Your task to perform on an android device: Open Youtube and go to "Your channel" Image 0: 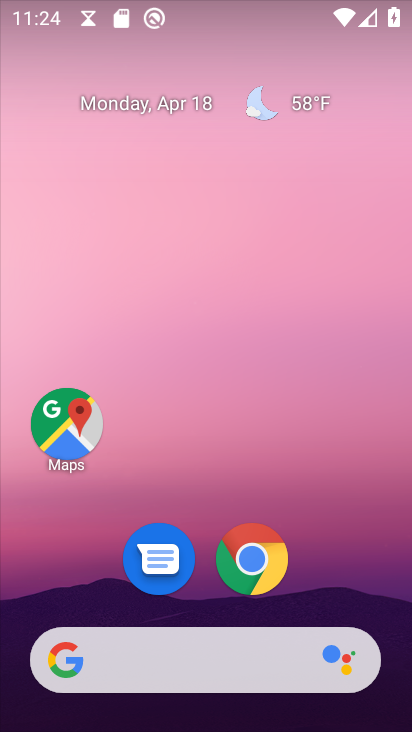
Step 0: drag from (350, 549) to (317, 102)
Your task to perform on an android device: Open Youtube and go to "Your channel" Image 1: 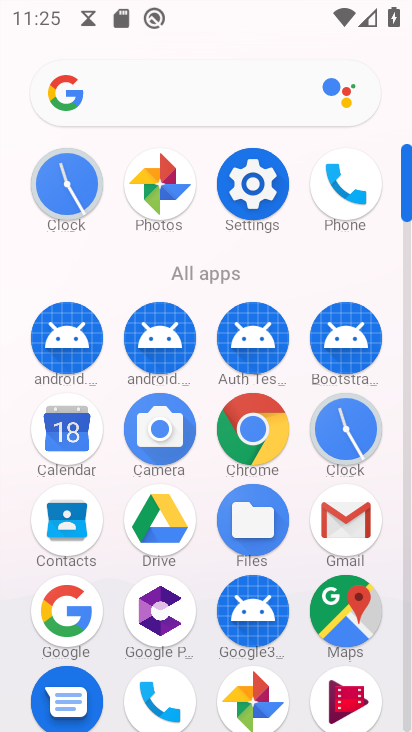
Step 1: drag from (213, 653) to (207, 213)
Your task to perform on an android device: Open Youtube and go to "Your channel" Image 2: 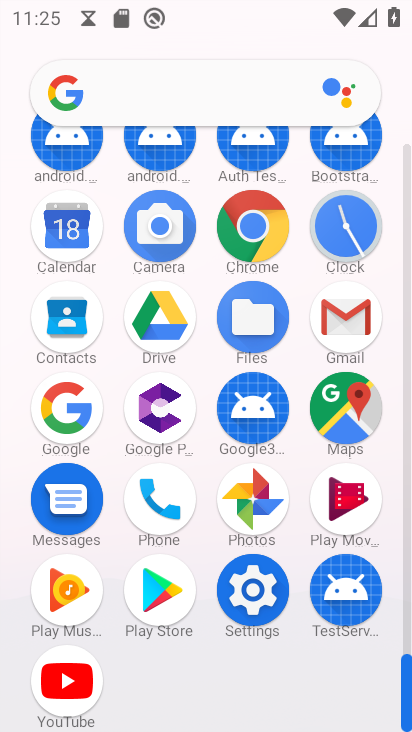
Step 2: click (86, 695)
Your task to perform on an android device: Open Youtube and go to "Your channel" Image 3: 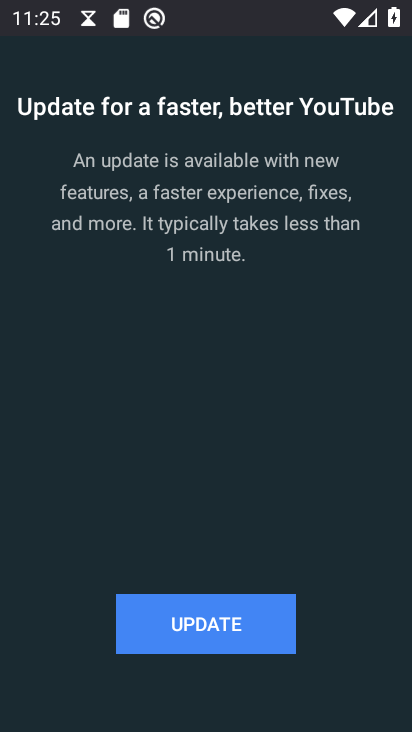
Step 3: click (221, 634)
Your task to perform on an android device: Open Youtube and go to "Your channel" Image 4: 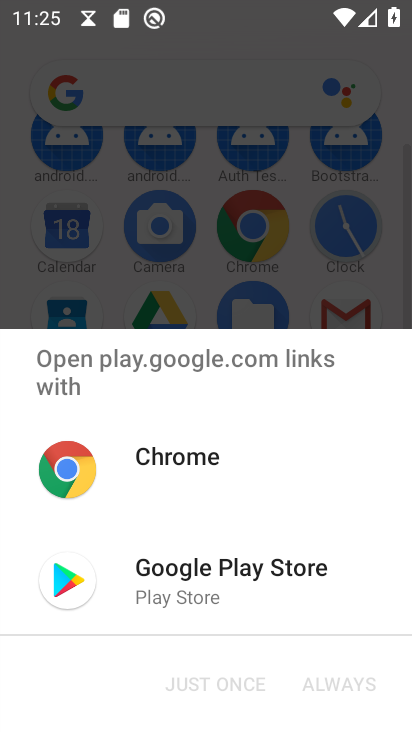
Step 4: click (188, 571)
Your task to perform on an android device: Open Youtube and go to "Your channel" Image 5: 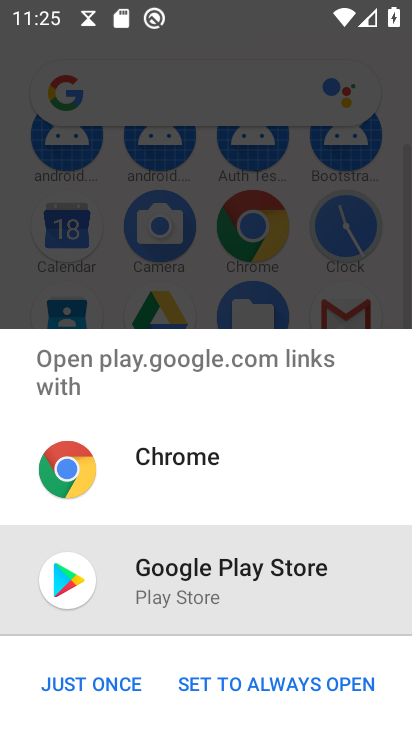
Step 5: click (97, 683)
Your task to perform on an android device: Open Youtube and go to "Your channel" Image 6: 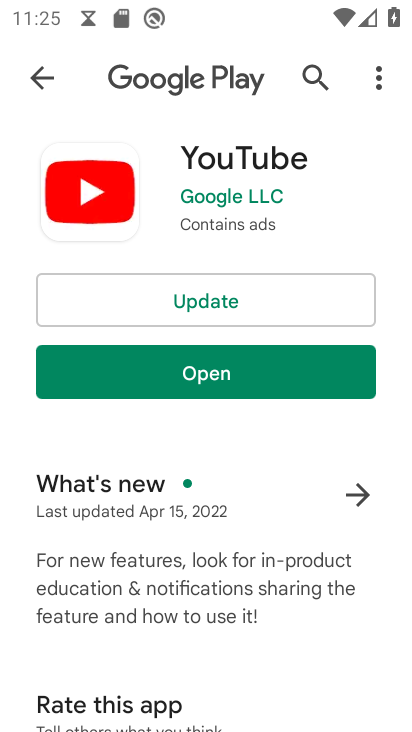
Step 6: click (203, 302)
Your task to perform on an android device: Open Youtube and go to "Your channel" Image 7: 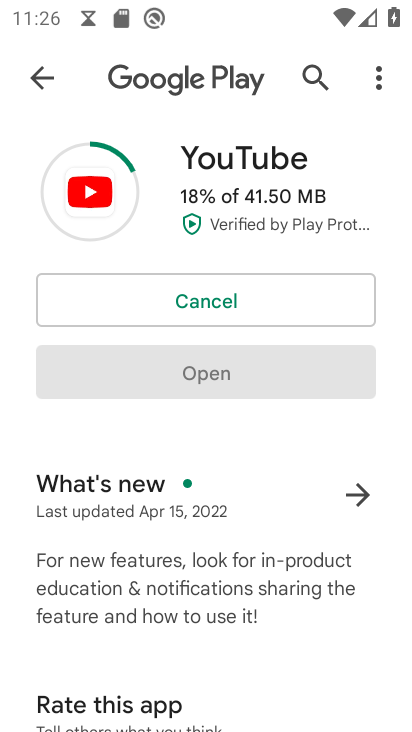
Step 7: click (203, 193)
Your task to perform on an android device: Open Youtube and go to "Your channel" Image 8: 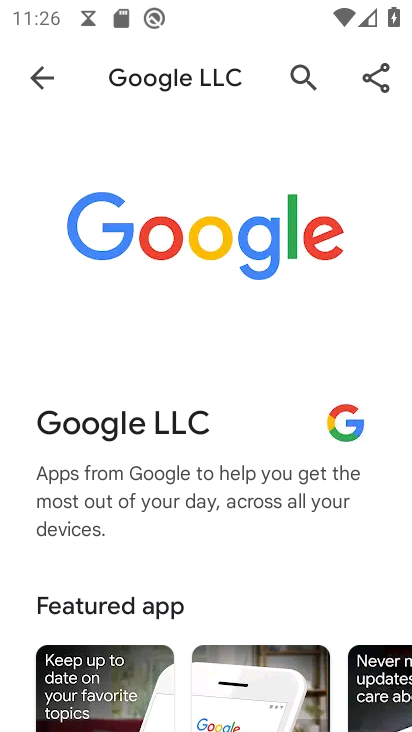
Step 8: click (41, 73)
Your task to perform on an android device: Open Youtube and go to "Your channel" Image 9: 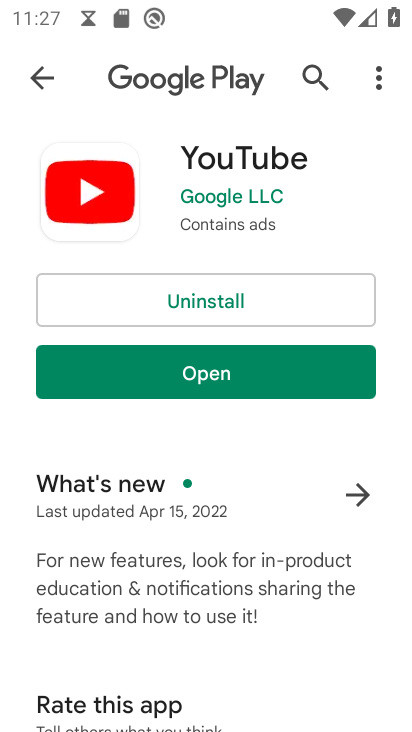
Step 9: click (160, 381)
Your task to perform on an android device: Open Youtube and go to "Your channel" Image 10: 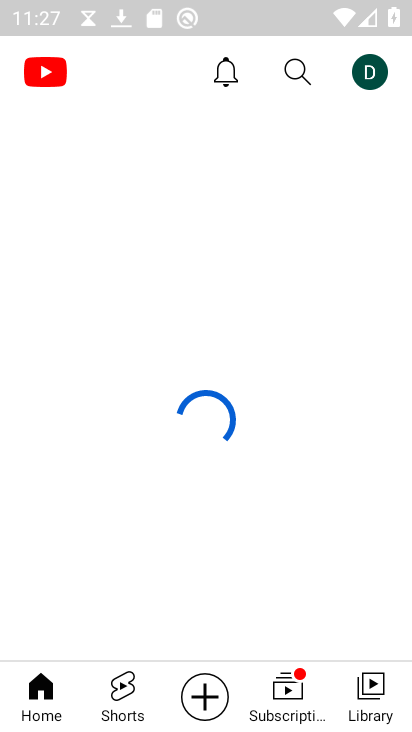
Step 10: click (380, 71)
Your task to perform on an android device: Open Youtube and go to "Your channel" Image 11: 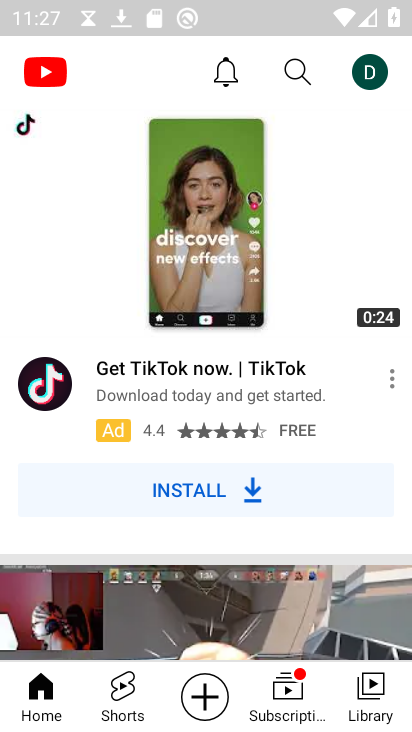
Step 11: click (369, 72)
Your task to perform on an android device: Open Youtube and go to "Your channel" Image 12: 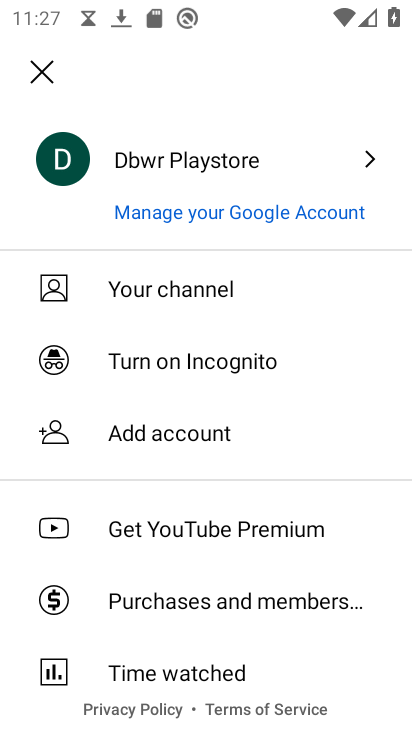
Step 12: click (152, 279)
Your task to perform on an android device: Open Youtube and go to "Your channel" Image 13: 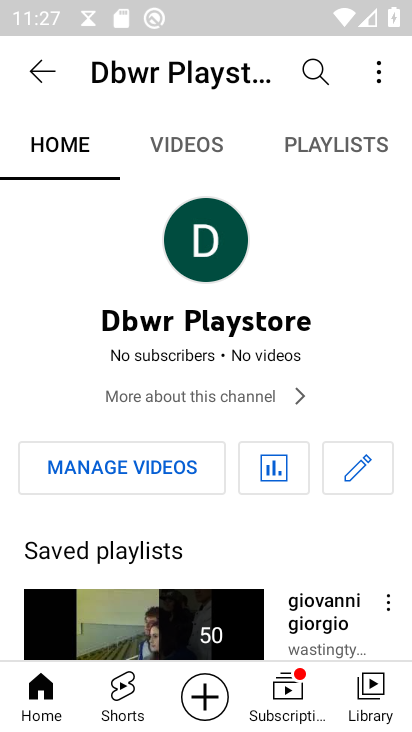
Step 13: task complete